Your task to perform on an android device: add a contact in the contacts app Image 0: 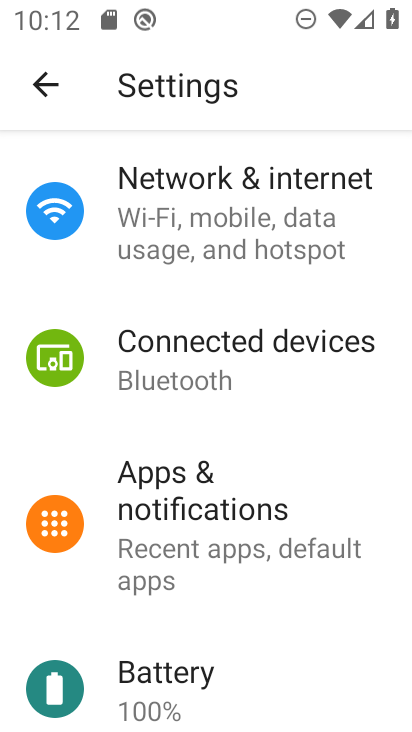
Step 0: press home button
Your task to perform on an android device: add a contact in the contacts app Image 1: 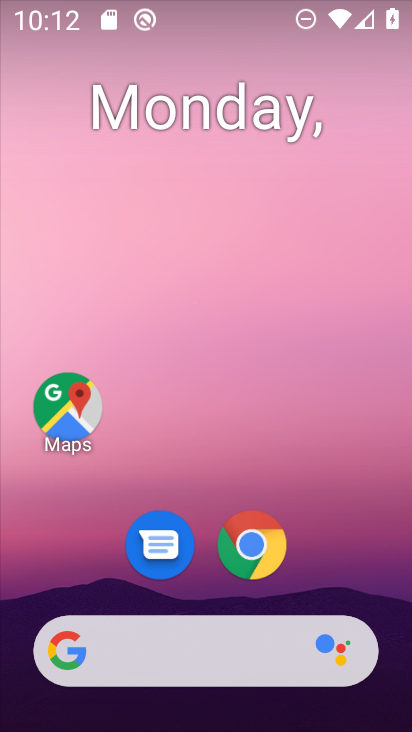
Step 1: drag from (151, 445) to (365, 181)
Your task to perform on an android device: add a contact in the contacts app Image 2: 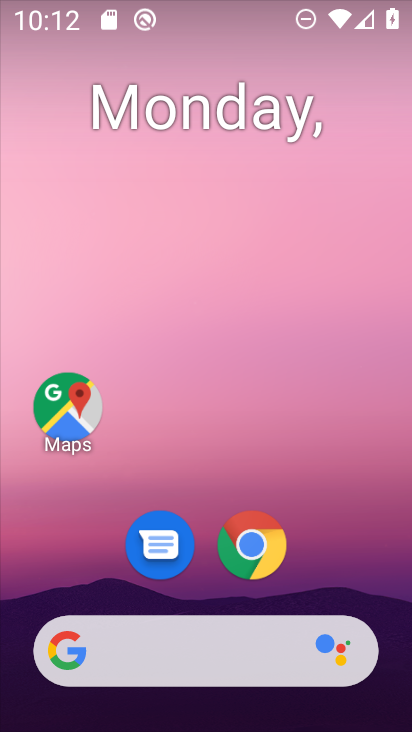
Step 2: drag from (41, 585) to (296, 122)
Your task to perform on an android device: add a contact in the contacts app Image 3: 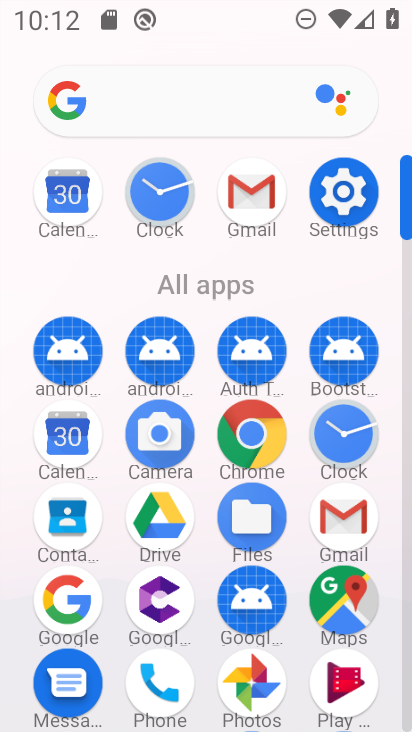
Step 3: click (150, 692)
Your task to perform on an android device: add a contact in the contacts app Image 4: 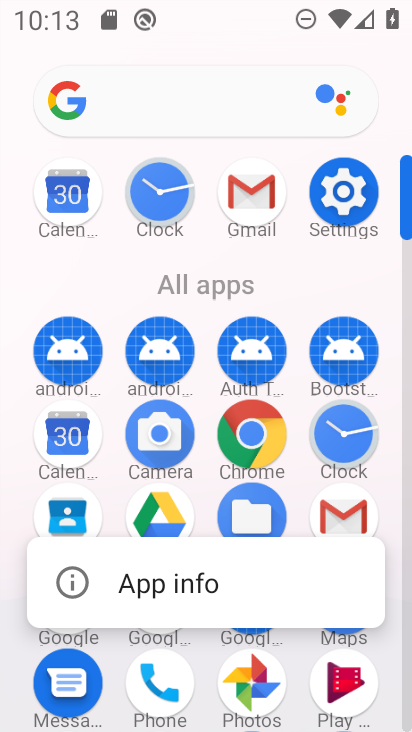
Step 4: click (188, 673)
Your task to perform on an android device: add a contact in the contacts app Image 5: 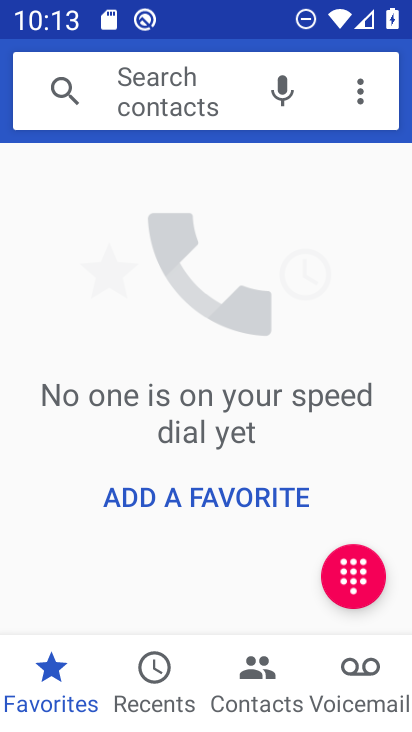
Step 5: click (251, 683)
Your task to perform on an android device: add a contact in the contacts app Image 6: 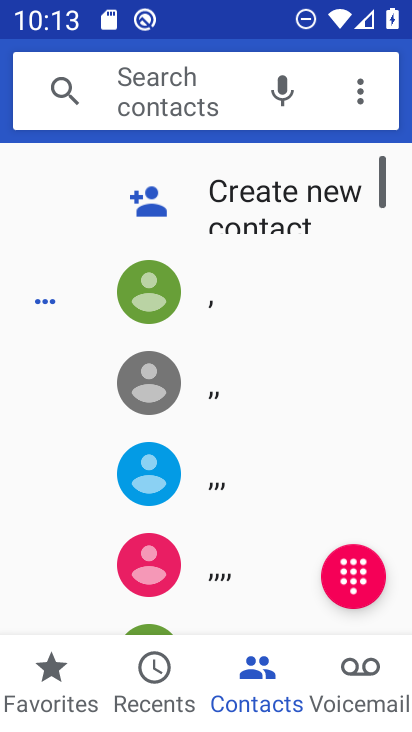
Step 6: click (275, 190)
Your task to perform on an android device: add a contact in the contacts app Image 7: 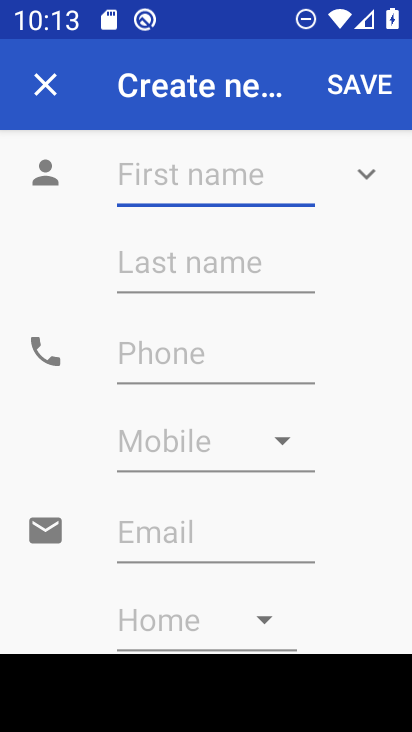
Step 7: click (184, 171)
Your task to perform on an android device: add a contact in the contacts app Image 8: 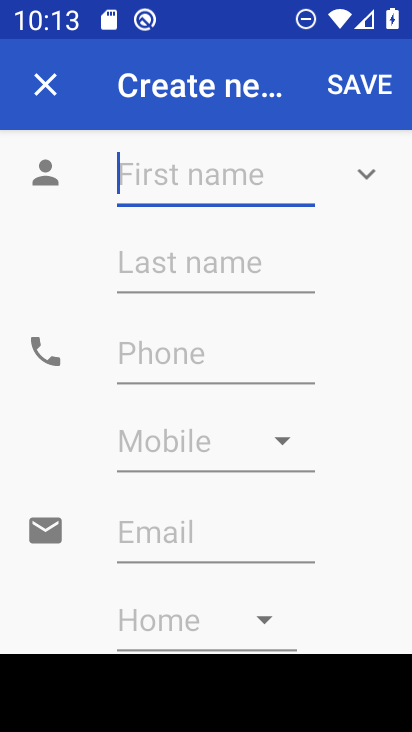
Step 8: type "hnbggf"
Your task to perform on an android device: add a contact in the contacts app Image 9: 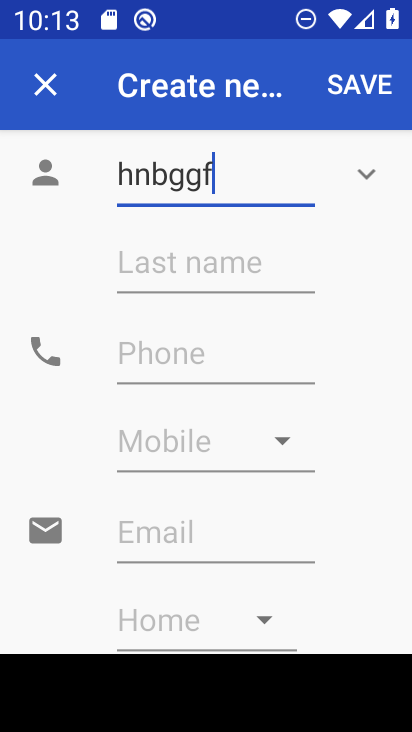
Step 9: type ""
Your task to perform on an android device: add a contact in the contacts app Image 10: 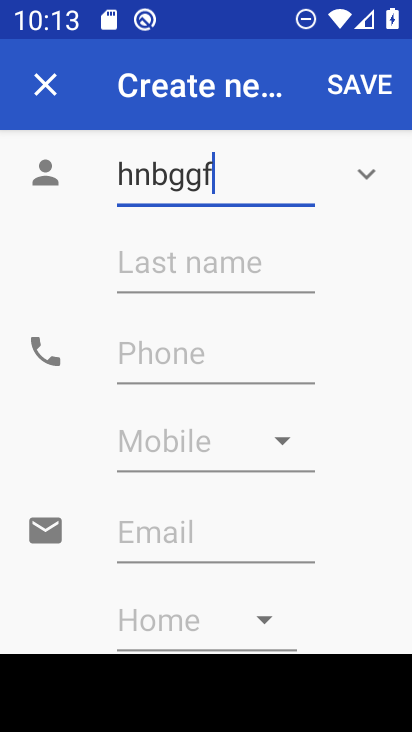
Step 10: click (337, 83)
Your task to perform on an android device: add a contact in the contacts app Image 11: 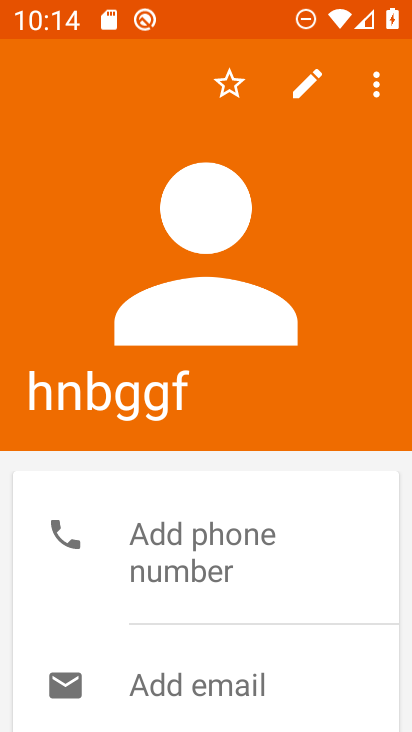
Step 11: task complete